Your task to perform on an android device: Go to accessibility settings Image 0: 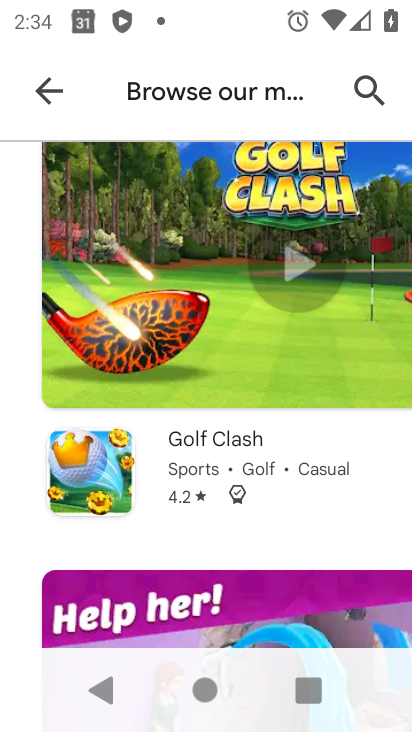
Step 0: press home button
Your task to perform on an android device: Go to accessibility settings Image 1: 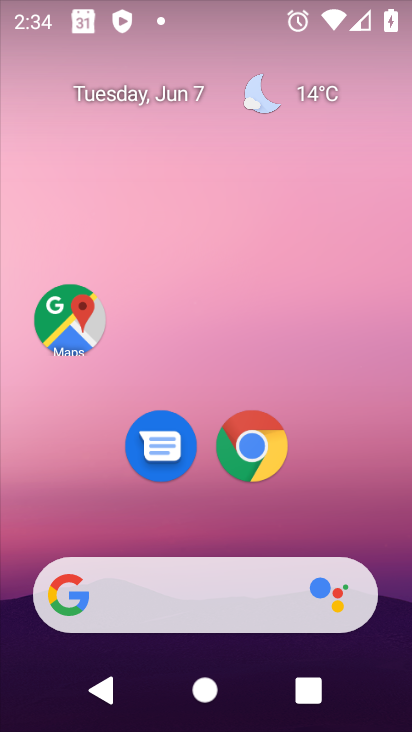
Step 1: drag from (406, 617) to (363, 116)
Your task to perform on an android device: Go to accessibility settings Image 2: 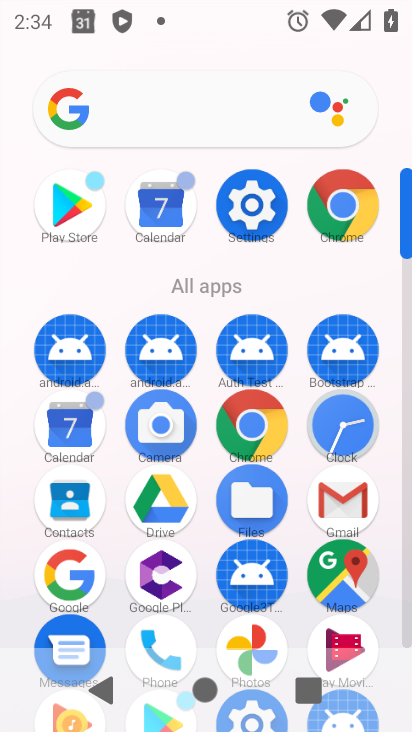
Step 2: click (409, 629)
Your task to perform on an android device: Go to accessibility settings Image 3: 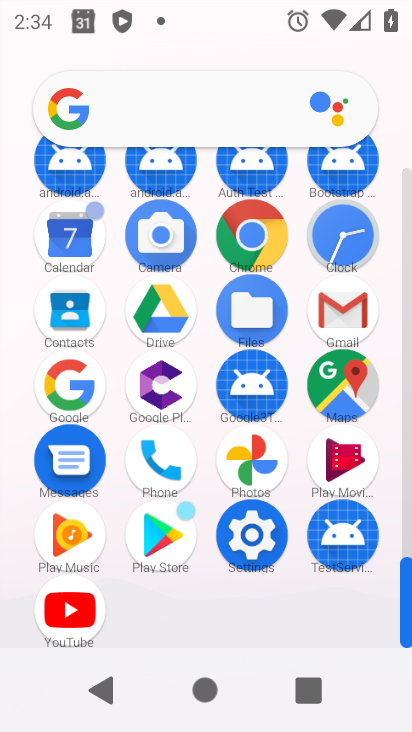
Step 3: click (252, 535)
Your task to perform on an android device: Go to accessibility settings Image 4: 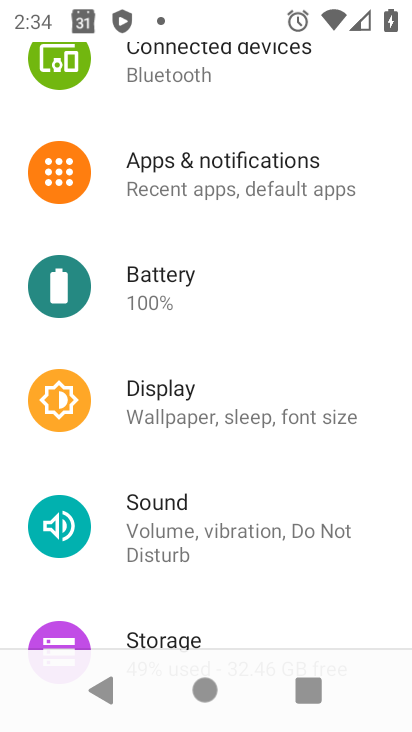
Step 4: drag from (391, 608) to (346, 82)
Your task to perform on an android device: Go to accessibility settings Image 5: 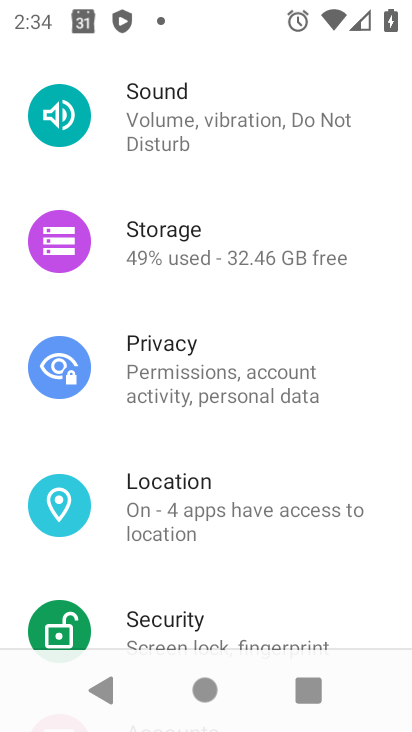
Step 5: drag from (367, 603) to (368, 148)
Your task to perform on an android device: Go to accessibility settings Image 6: 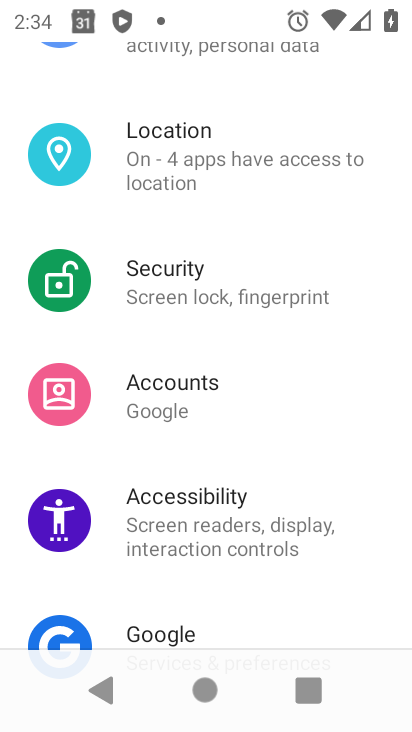
Step 6: click (162, 517)
Your task to perform on an android device: Go to accessibility settings Image 7: 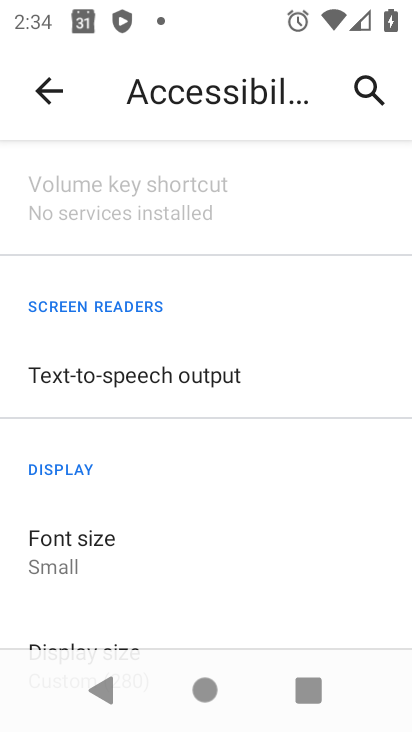
Step 7: task complete